Your task to perform on an android device: Open battery settings Image 0: 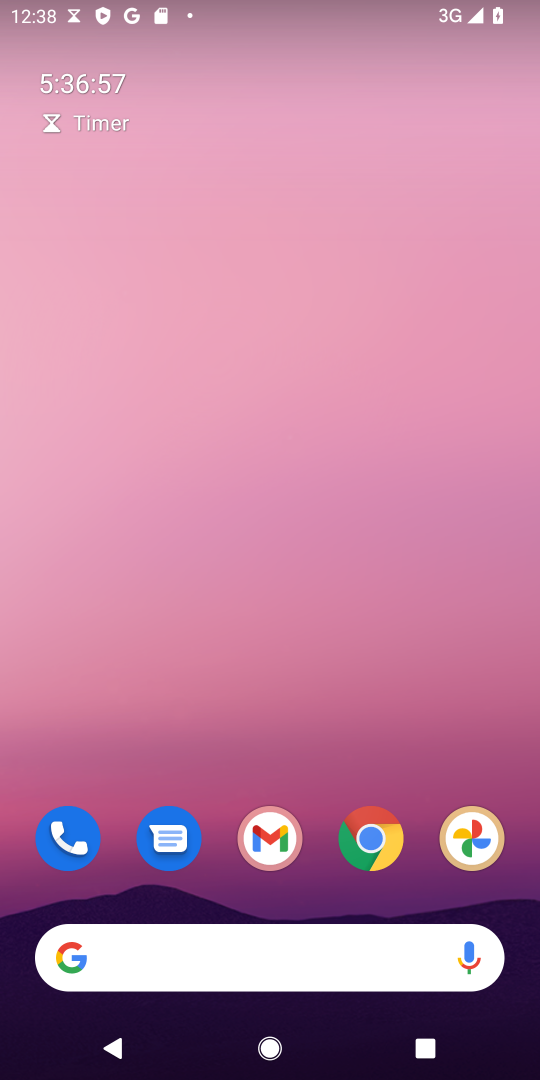
Step 0: drag from (217, 740) to (332, 14)
Your task to perform on an android device: Open battery settings Image 1: 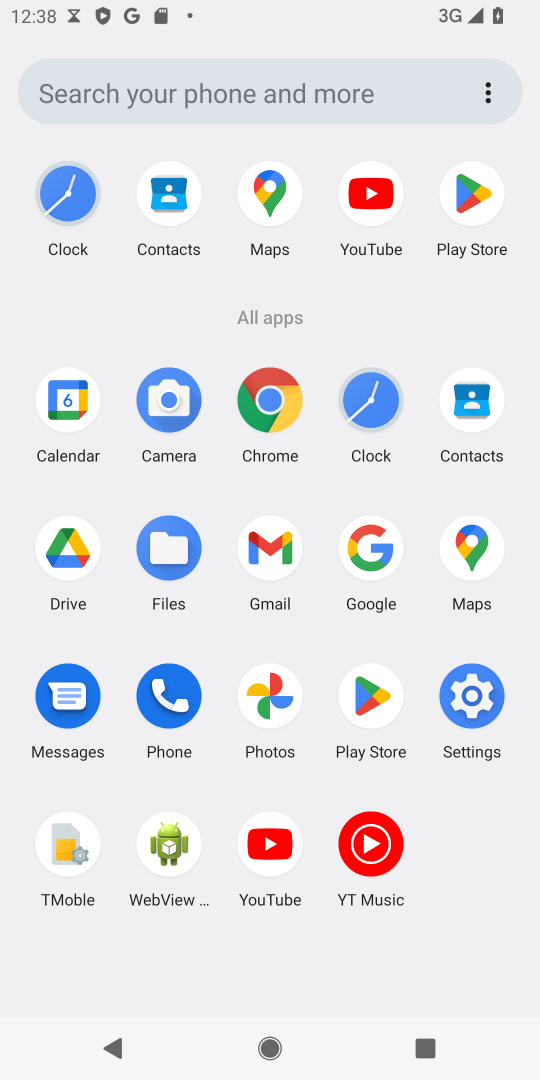
Step 1: click (476, 697)
Your task to perform on an android device: Open battery settings Image 2: 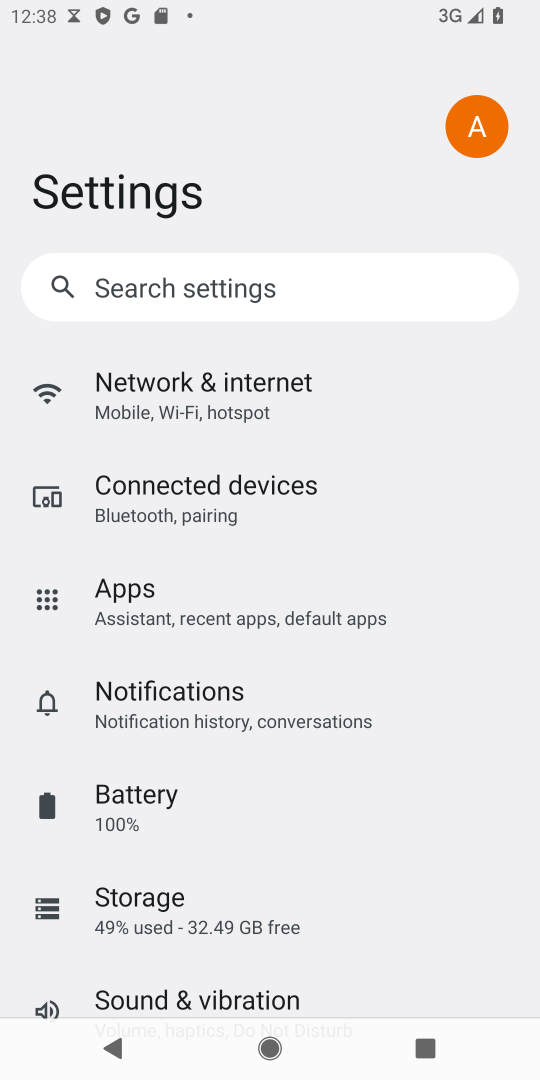
Step 2: click (218, 812)
Your task to perform on an android device: Open battery settings Image 3: 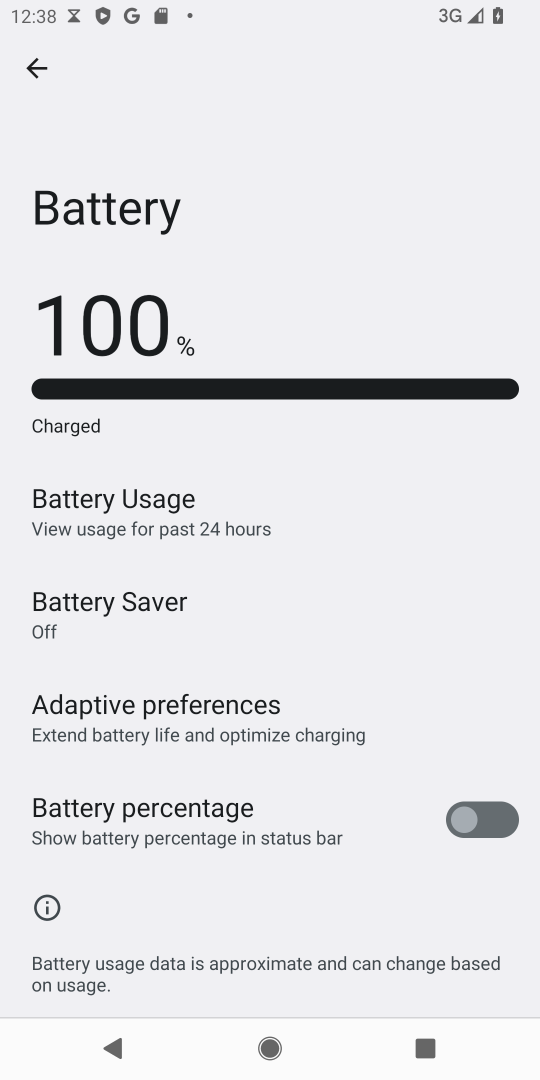
Step 3: task complete